Your task to perform on an android device: How much does a 3 bedroom apartment rent for in Seattle? Image 0: 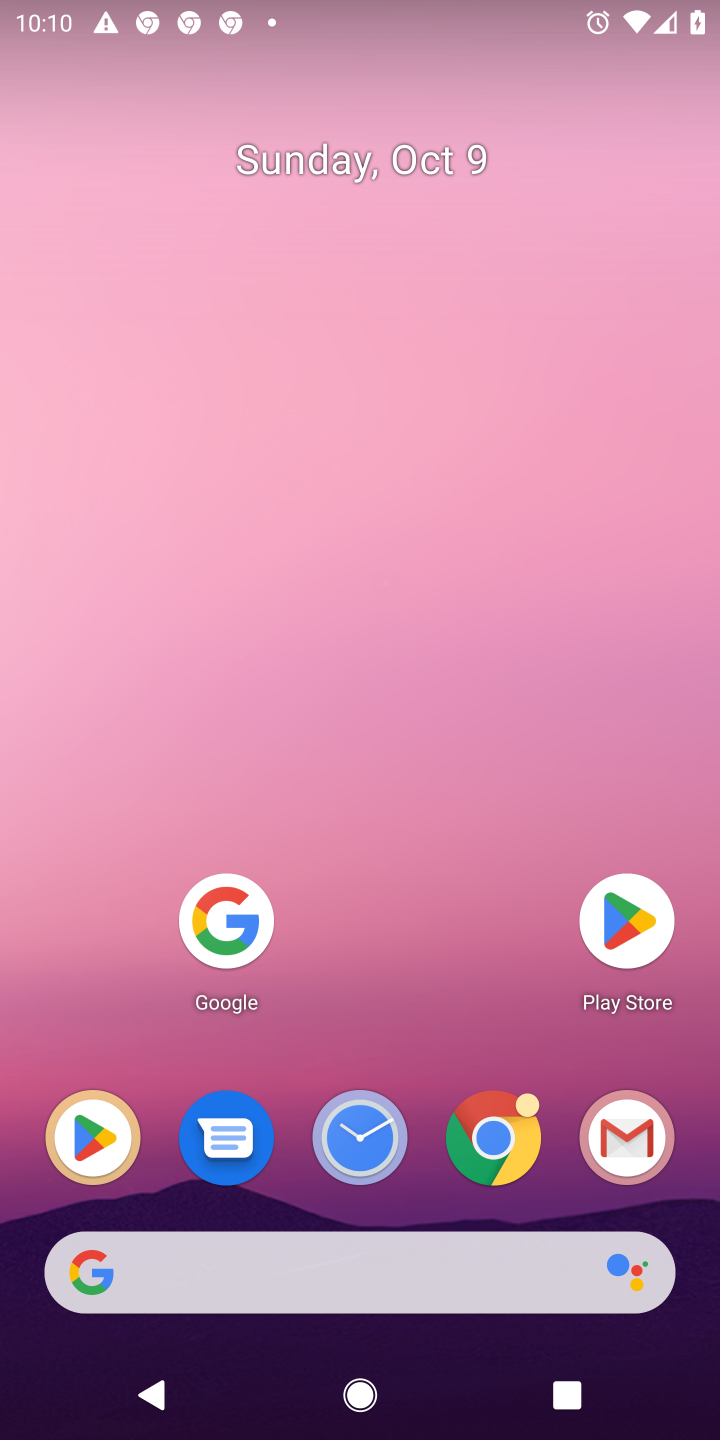
Step 0: click (231, 899)
Your task to perform on an android device: How much does a 3 bedroom apartment rent for in Seattle? Image 1: 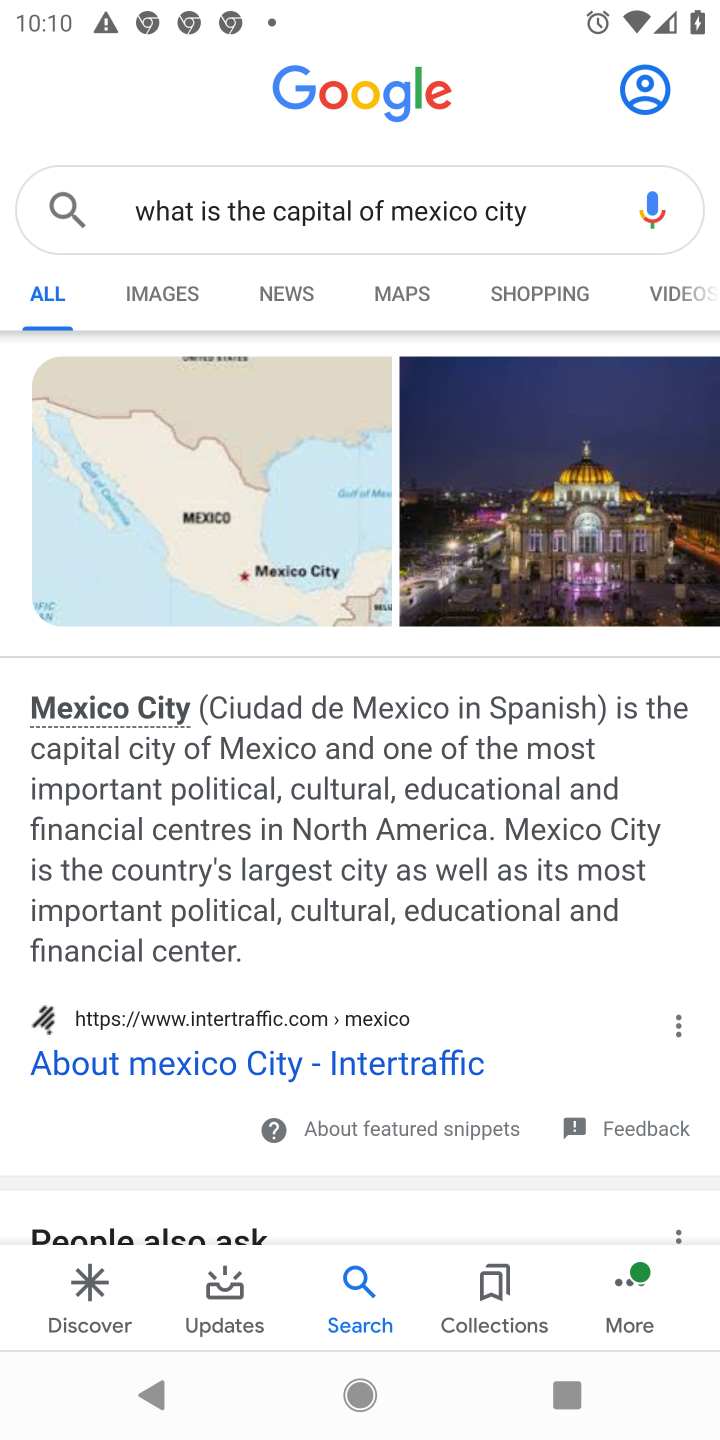
Step 1: click (549, 196)
Your task to perform on an android device: How much does a 3 bedroom apartment rent for in Seattle? Image 2: 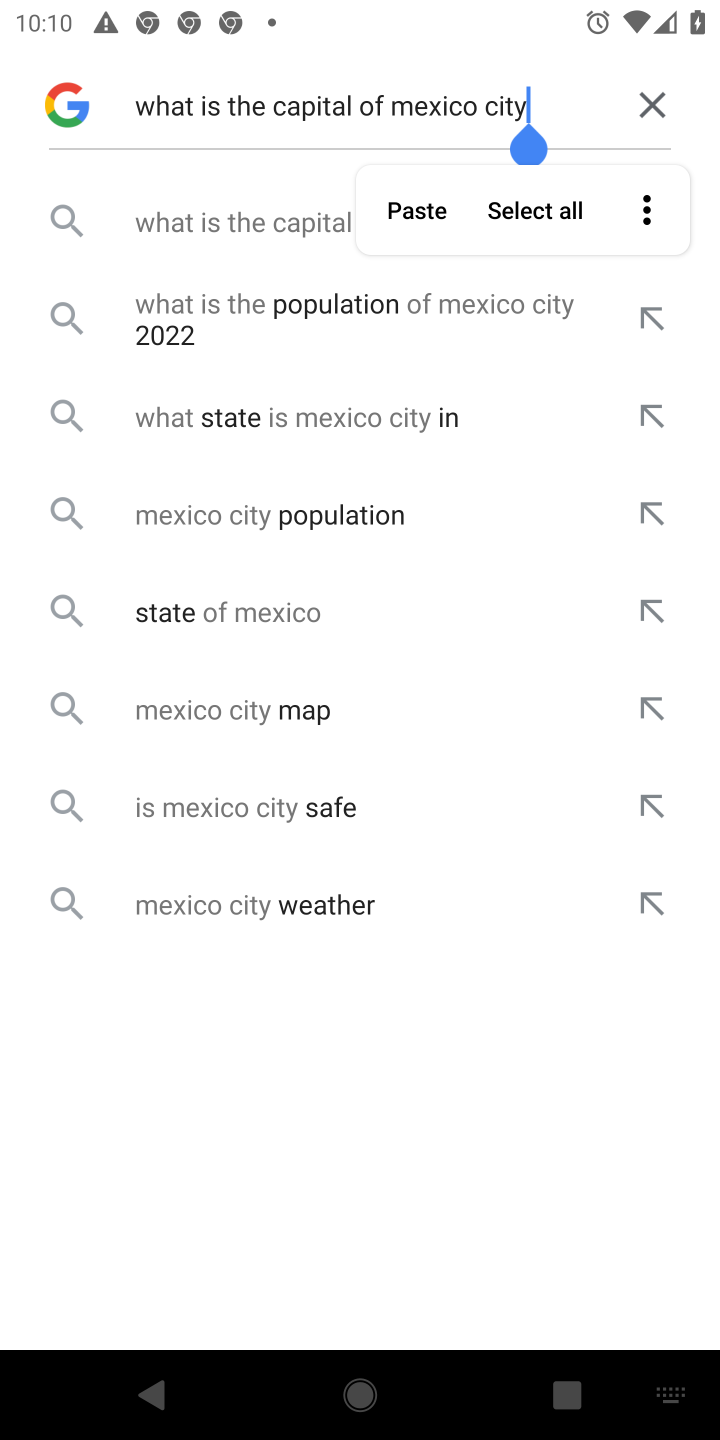
Step 2: click (646, 103)
Your task to perform on an android device: How much does a 3 bedroom apartment rent for in Seattle? Image 3: 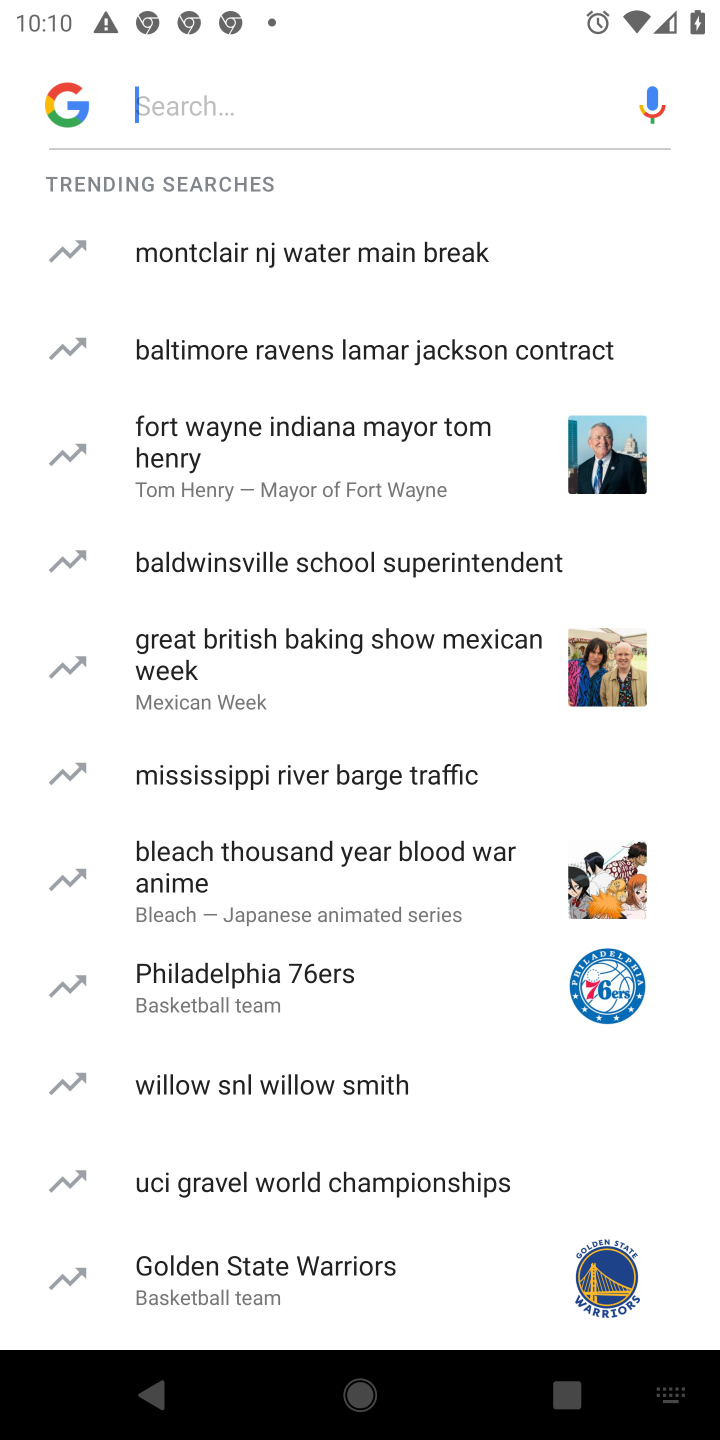
Step 3: click (329, 110)
Your task to perform on an android device: How much does a 3 bedroom apartment rent for in Seattle? Image 4: 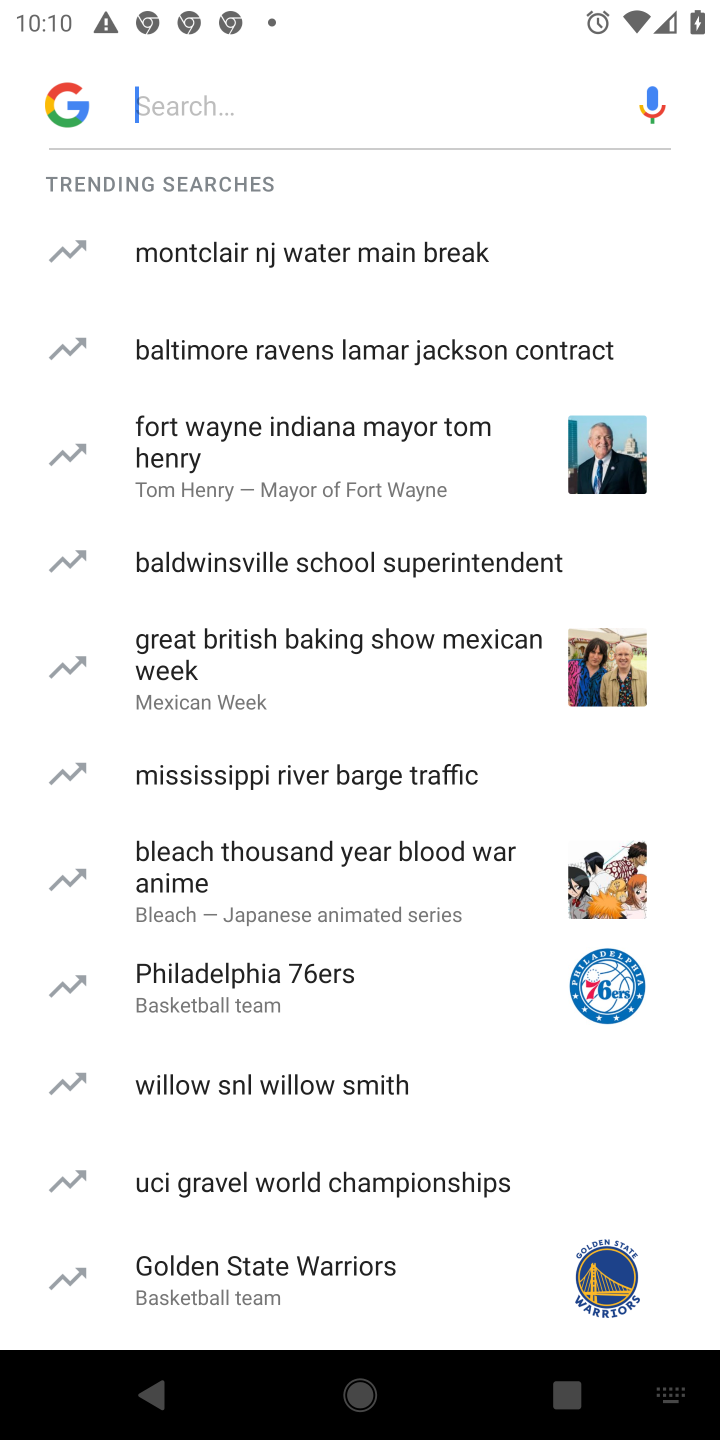
Step 4: type "How much does a 3 bedroom apartment rent for in Seattle? "
Your task to perform on an android device: How much does a 3 bedroom apartment rent for in Seattle? Image 5: 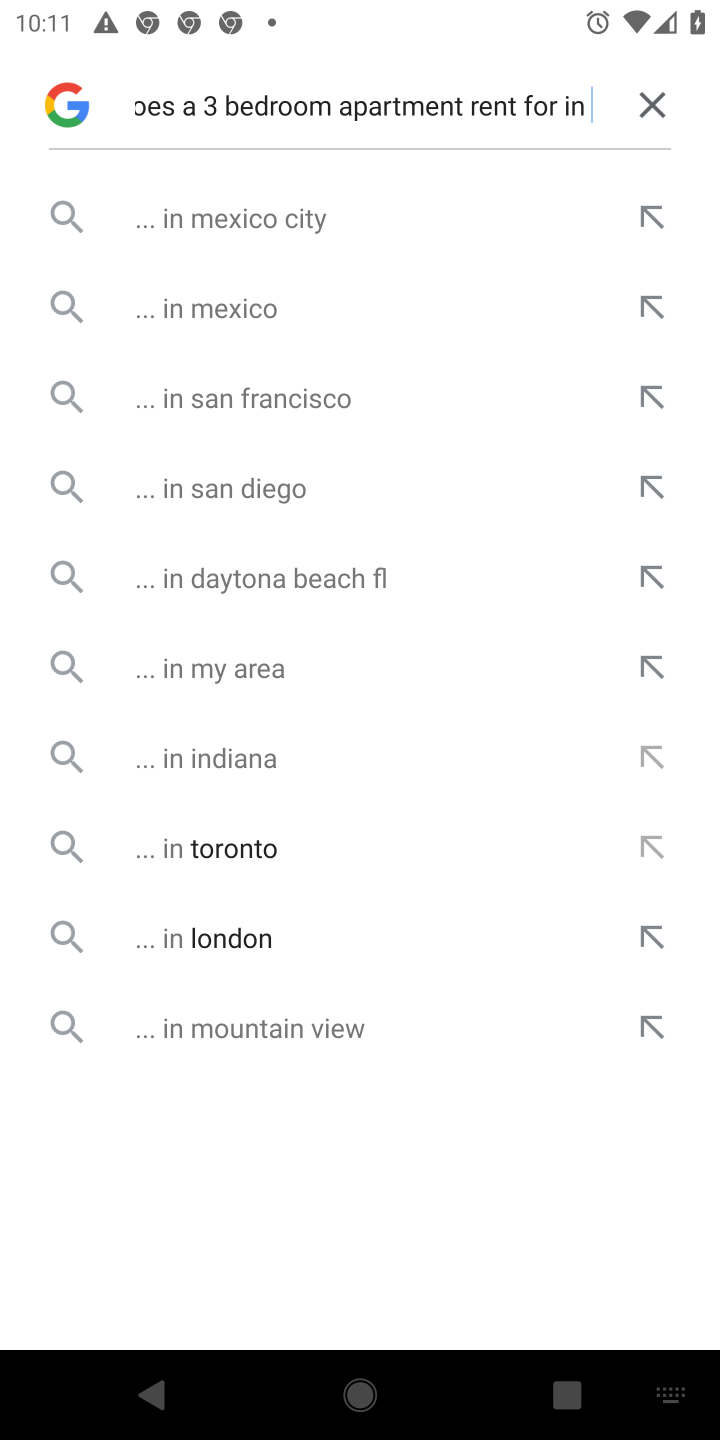
Step 5: click (241, 667)
Your task to perform on an android device: How much does a 3 bedroom apartment rent for in Seattle? Image 6: 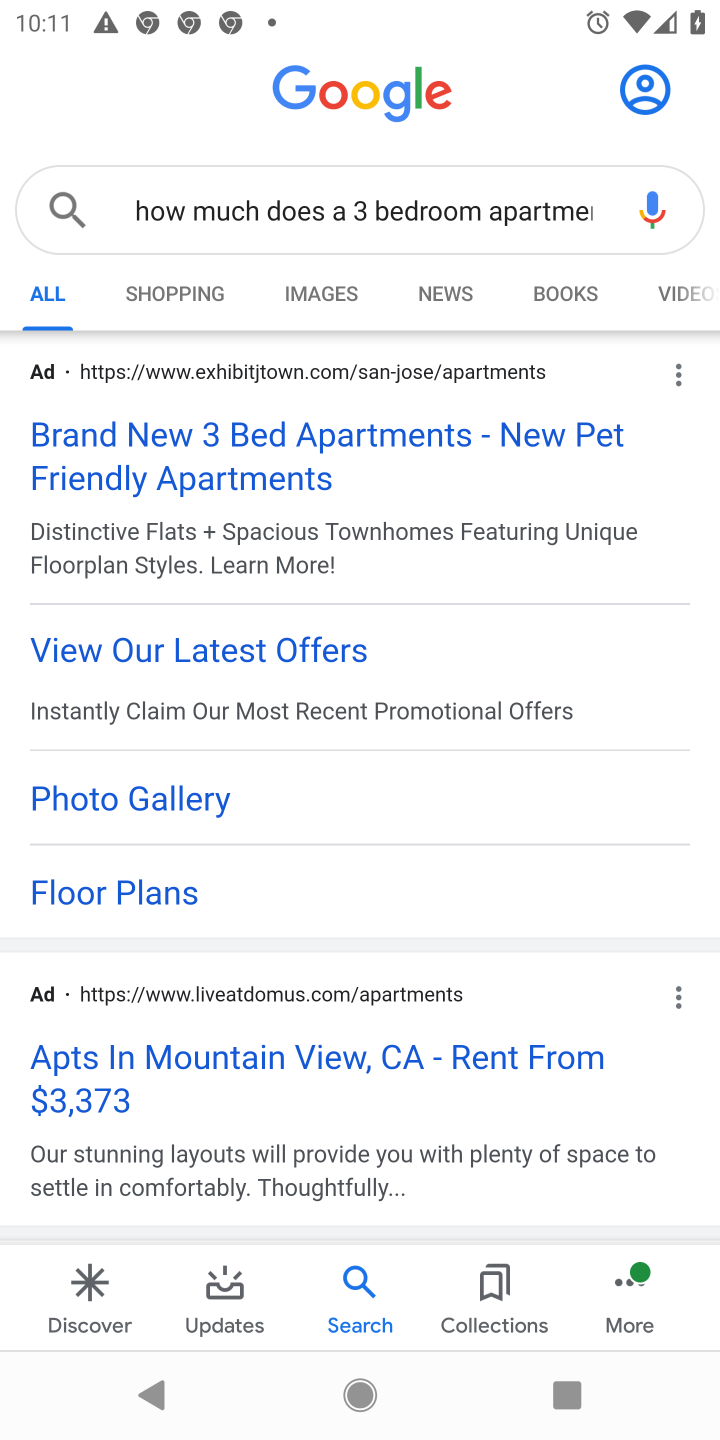
Step 6: click (250, 424)
Your task to perform on an android device: How much does a 3 bedroom apartment rent for in Seattle? Image 7: 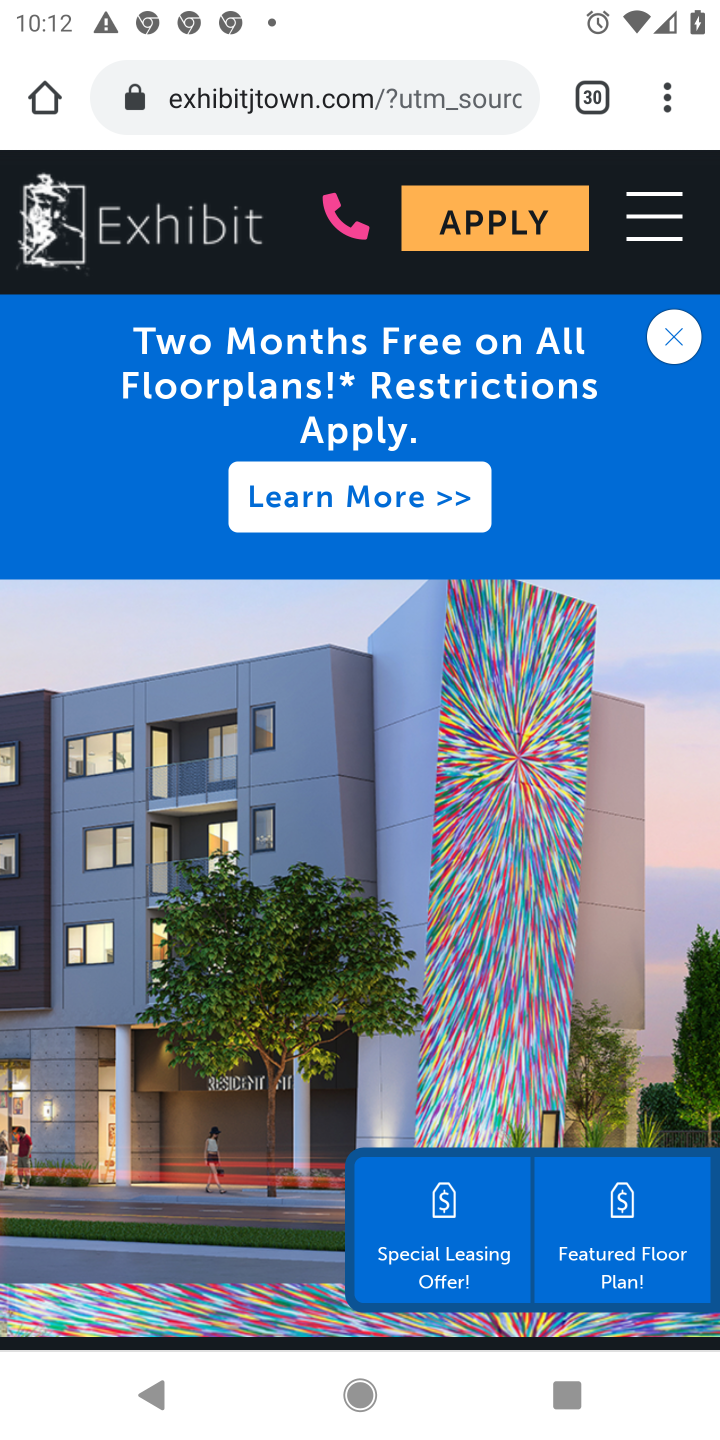
Step 7: drag from (304, 947) to (321, 364)
Your task to perform on an android device: How much does a 3 bedroom apartment rent for in Seattle? Image 8: 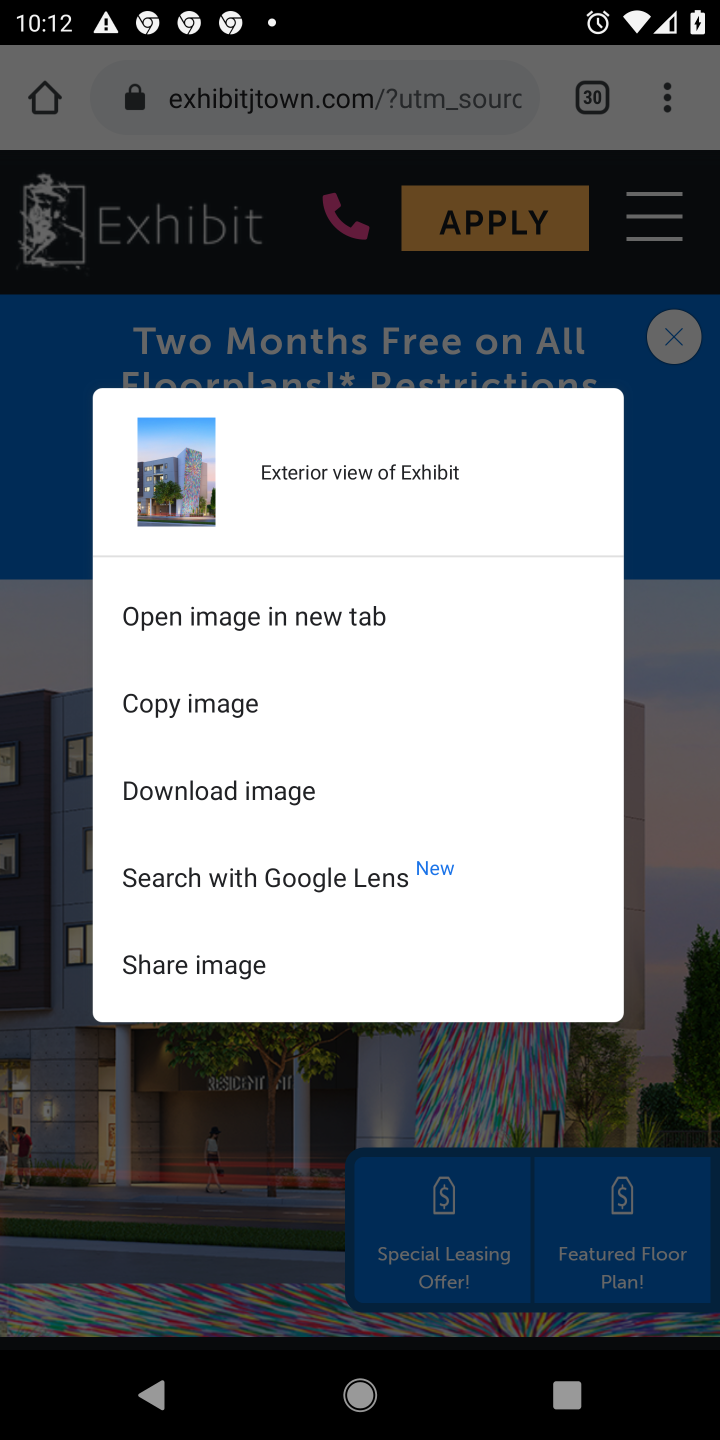
Step 8: click (471, 1221)
Your task to perform on an android device: How much does a 3 bedroom apartment rent for in Seattle? Image 9: 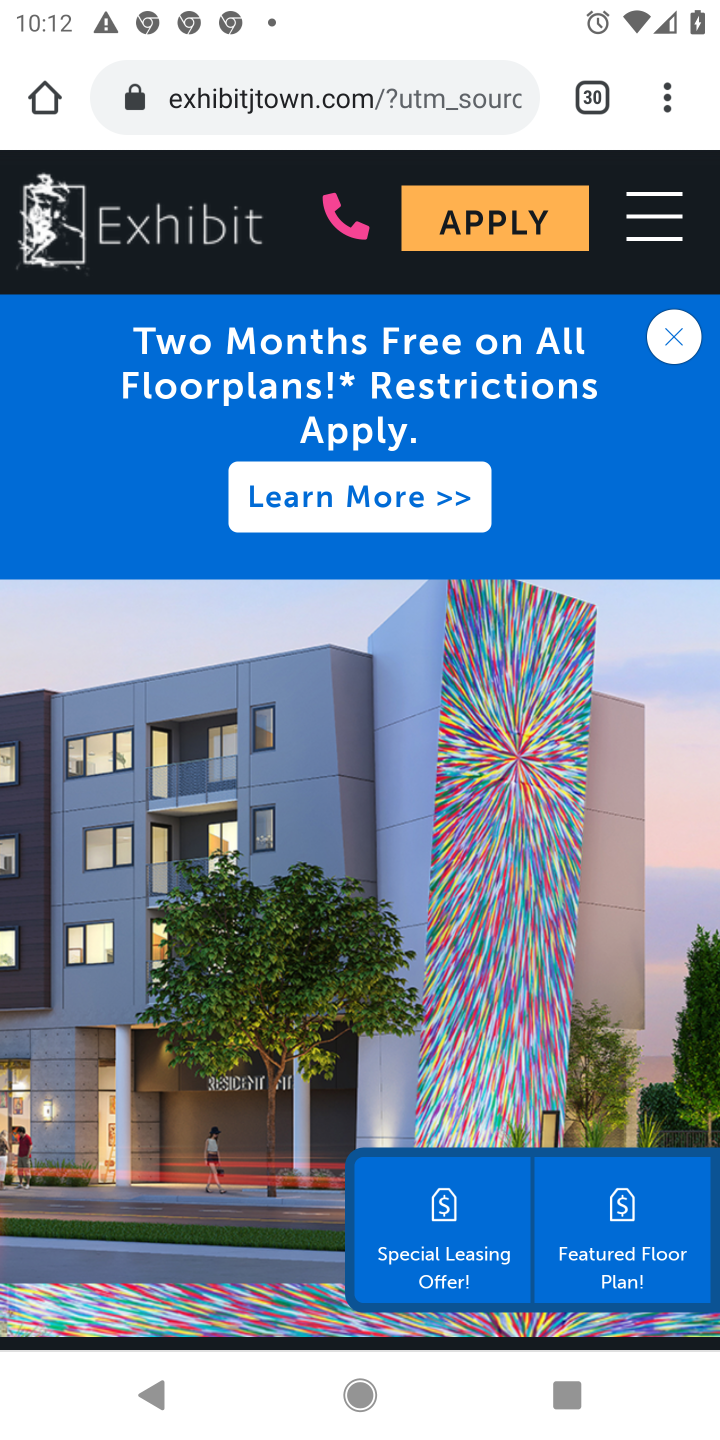
Step 9: task complete